Your task to perform on an android device: Open Google Image 0: 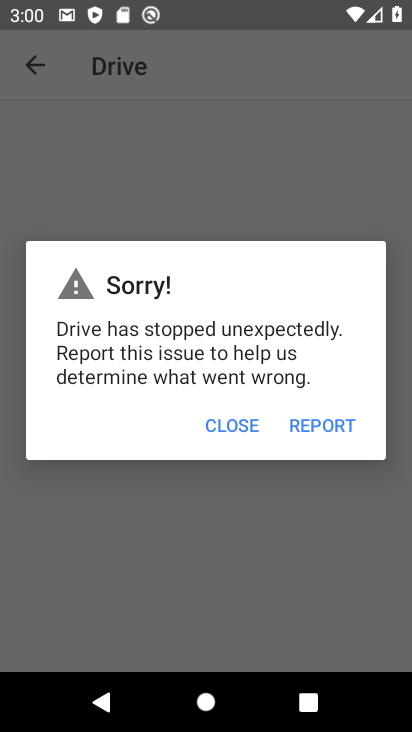
Step 0: press home button
Your task to perform on an android device: Open Google Image 1: 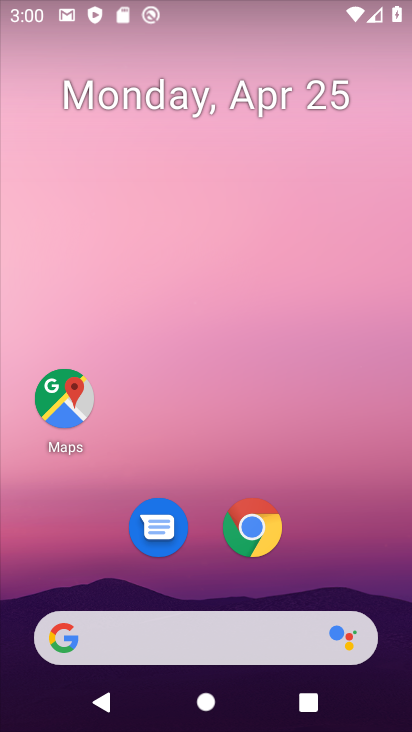
Step 1: click (107, 627)
Your task to perform on an android device: Open Google Image 2: 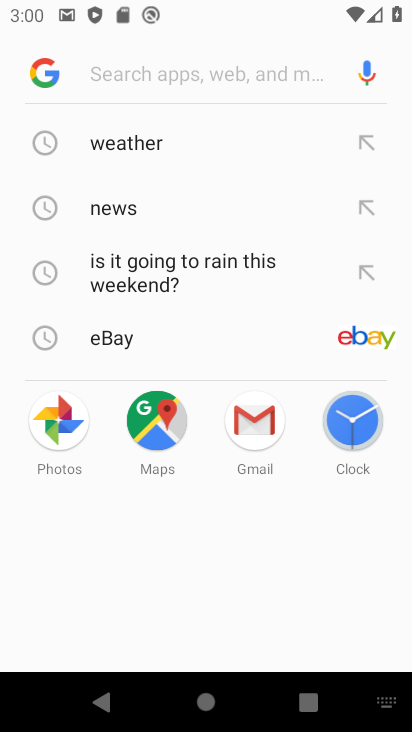
Step 2: click (40, 79)
Your task to perform on an android device: Open Google Image 3: 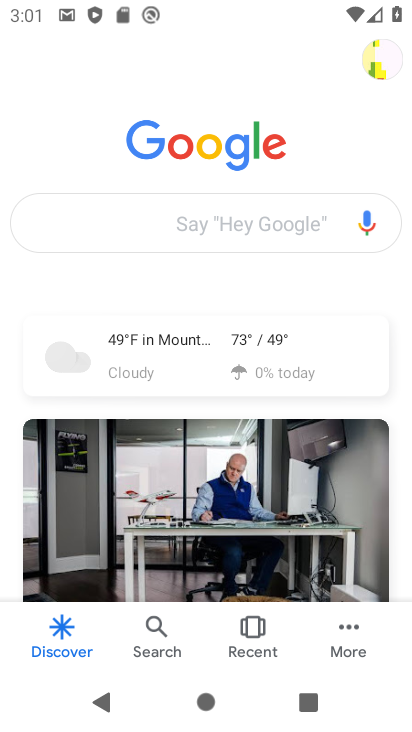
Step 3: task complete